Your task to perform on an android device: turn on wifi Image 0: 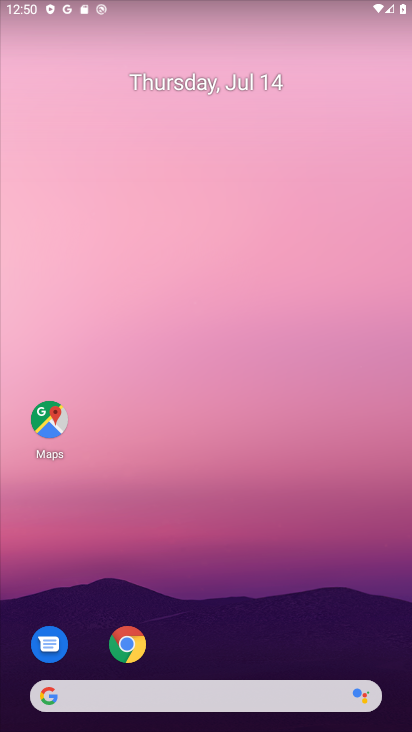
Step 0: drag from (232, 674) to (258, 298)
Your task to perform on an android device: turn on wifi Image 1: 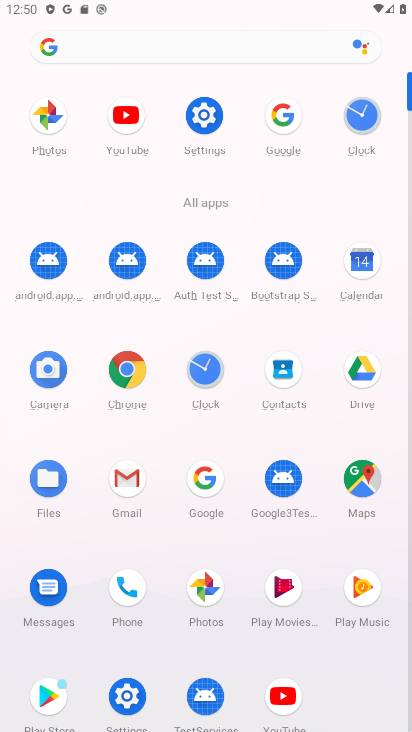
Step 1: click (120, 709)
Your task to perform on an android device: turn on wifi Image 2: 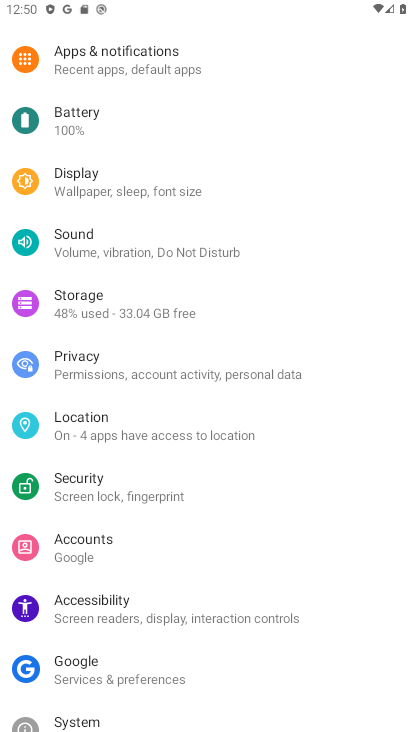
Step 2: drag from (155, 79) to (104, 449)
Your task to perform on an android device: turn on wifi Image 3: 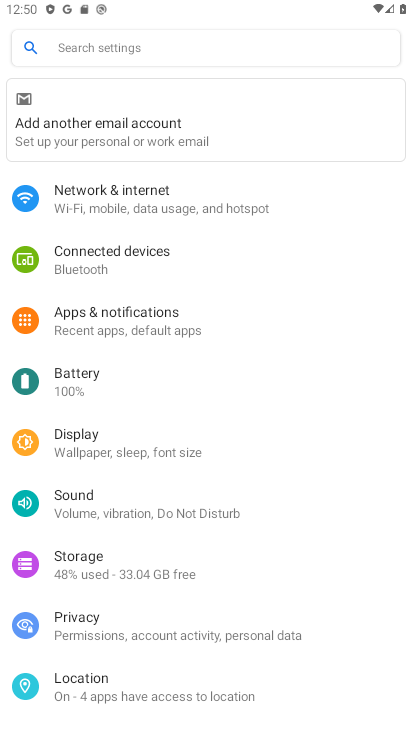
Step 3: click (151, 200)
Your task to perform on an android device: turn on wifi Image 4: 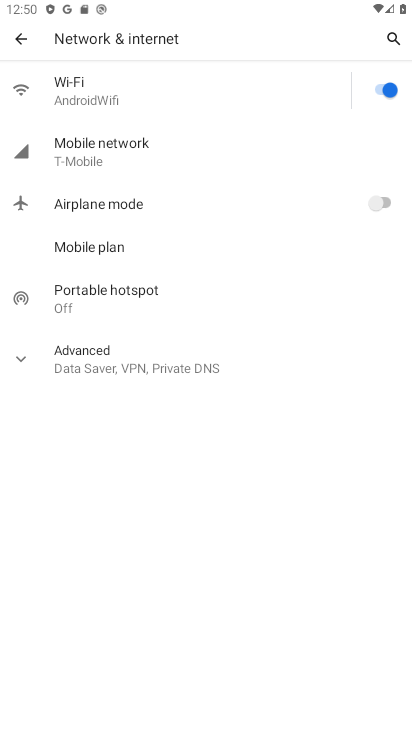
Step 4: task complete